Your task to perform on an android device: open app "ColorNote Notepad Notes" (install if not already installed) and go to login screen Image 0: 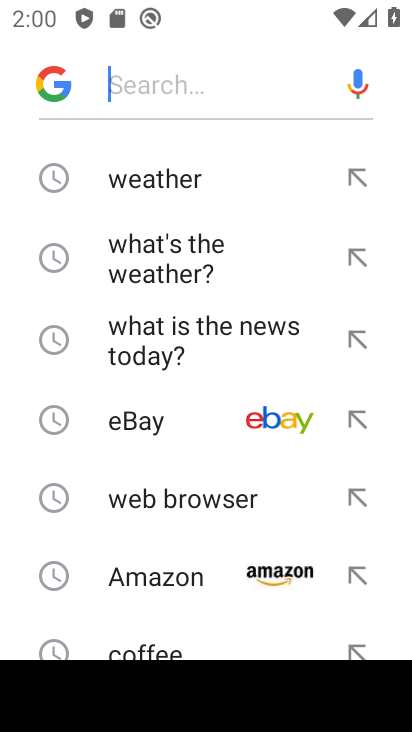
Step 0: press back button
Your task to perform on an android device: open app "ColorNote Notepad Notes" (install if not already installed) and go to login screen Image 1: 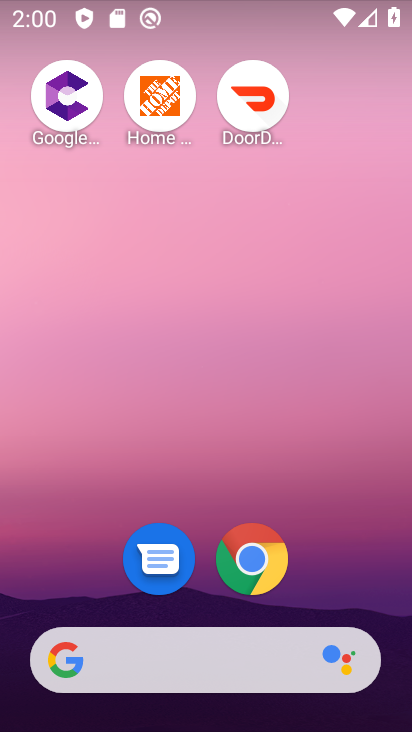
Step 1: drag from (206, 493) to (271, 12)
Your task to perform on an android device: open app "ColorNote Notepad Notes" (install if not already installed) and go to login screen Image 2: 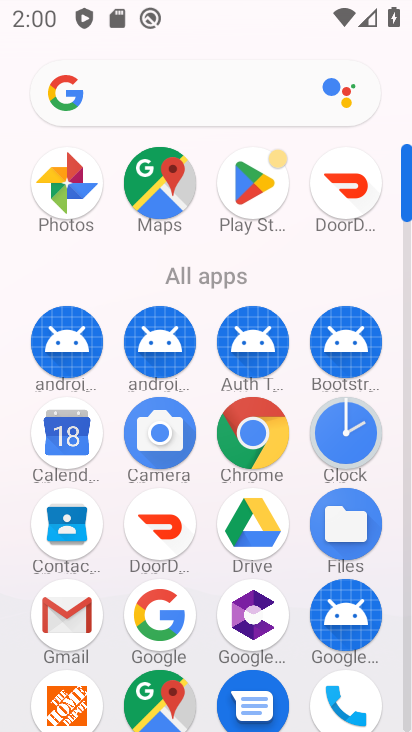
Step 2: click (255, 177)
Your task to perform on an android device: open app "ColorNote Notepad Notes" (install if not already installed) and go to login screen Image 3: 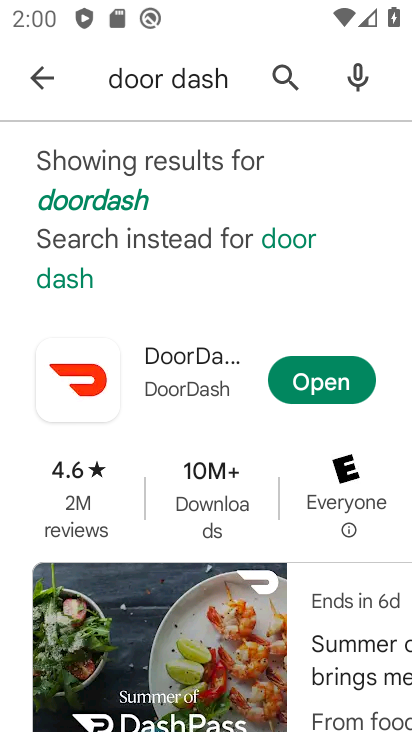
Step 3: click (283, 67)
Your task to perform on an android device: open app "ColorNote Notepad Notes" (install if not already installed) and go to login screen Image 4: 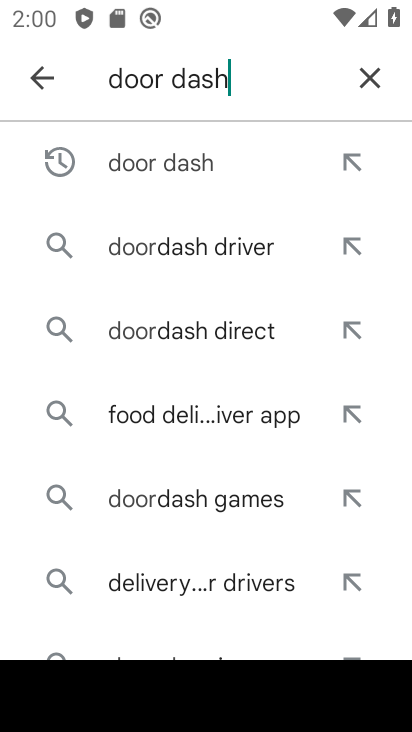
Step 4: click (369, 79)
Your task to perform on an android device: open app "ColorNote Notepad Notes" (install if not already installed) and go to login screen Image 5: 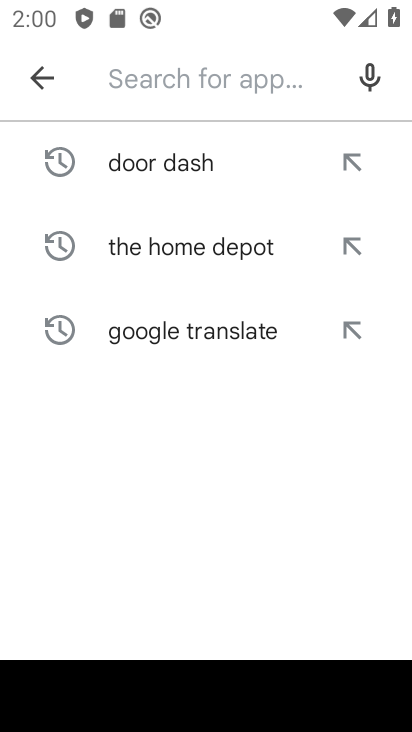
Step 5: click (106, 62)
Your task to perform on an android device: open app "ColorNote Notepad Notes" (install if not already installed) and go to login screen Image 6: 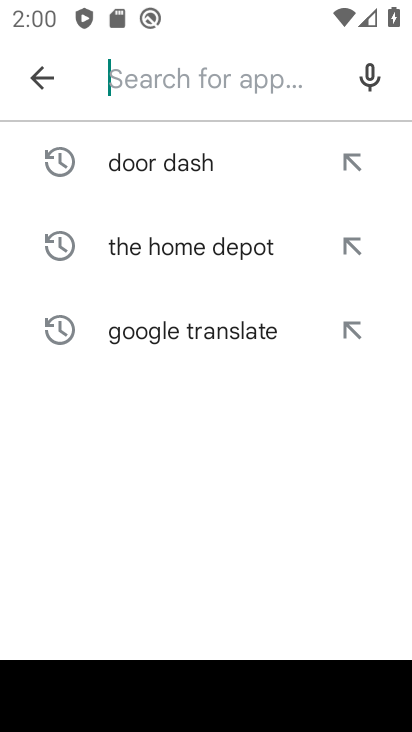
Step 6: type "ColorNote Notepad Notes"
Your task to perform on an android device: open app "ColorNote Notepad Notes" (install if not already installed) and go to login screen Image 7: 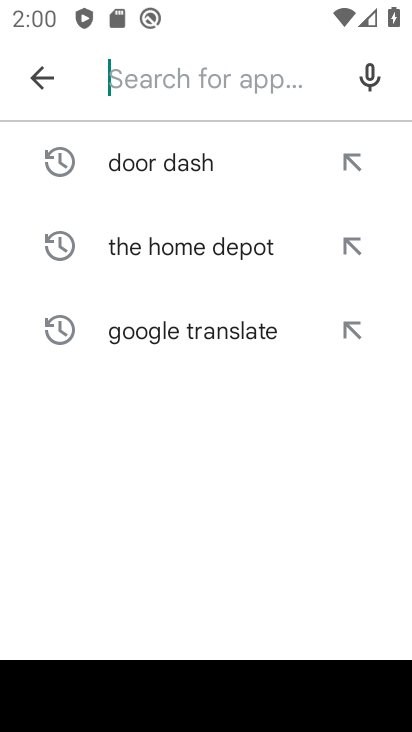
Step 7: click (204, 462)
Your task to perform on an android device: open app "ColorNote Notepad Notes" (install if not already installed) and go to login screen Image 8: 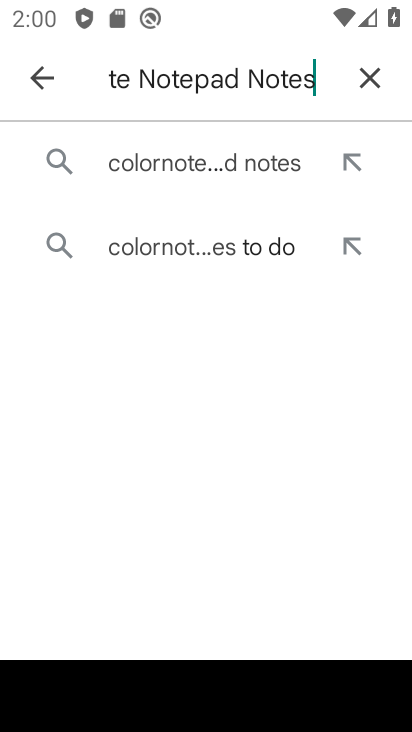
Step 8: click (176, 154)
Your task to perform on an android device: open app "ColorNote Notepad Notes" (install if not already installed) and go to login screen Image 9: 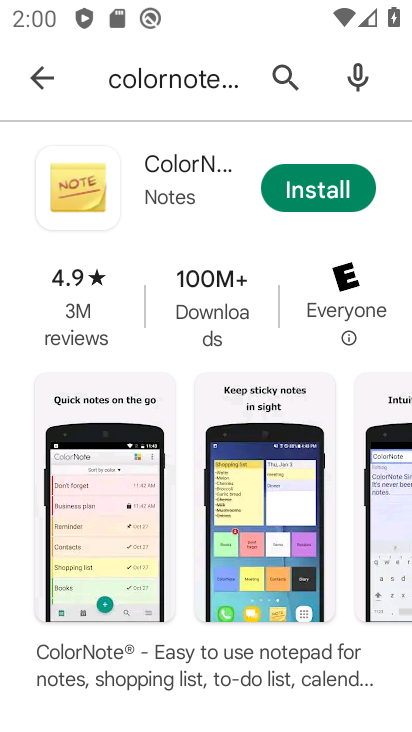
Step 9: click (335, 189)
Your task to perform on an android device: open app "ColorNote Notepad Notes" (install if not already installed) and go to login screen Image 10: 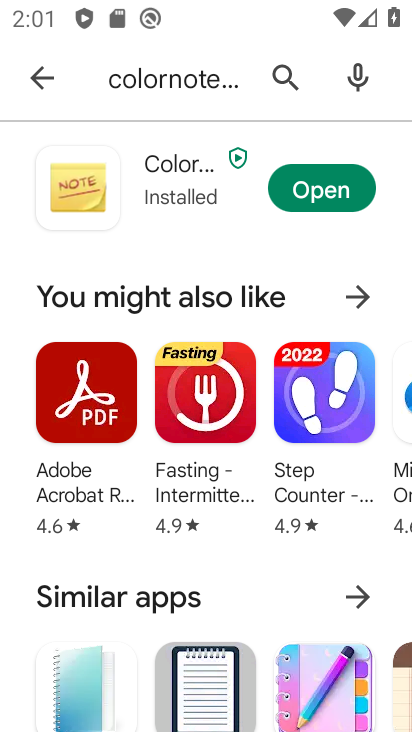
Step 10: click (321, 191)
Your task to perform on an android device: open app "ColorNote Notepad Notes" (install if not already installed) and go to login screen Image 11: 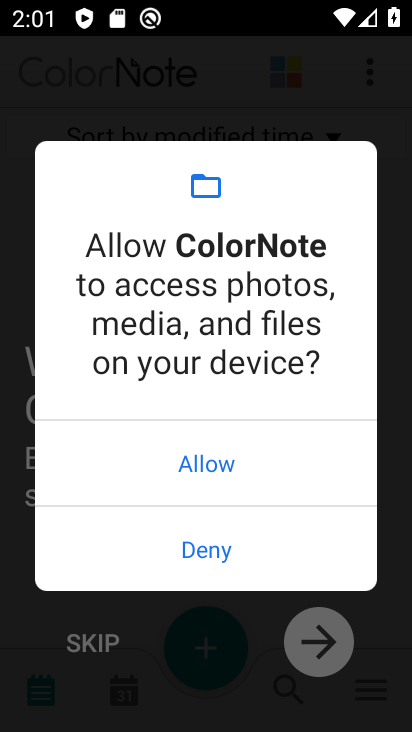
Step 11: press back button
Your task to perform on an android device: open app "ColorNote Notepad Notes" (install if not already installed) and go to login screen Image 12: 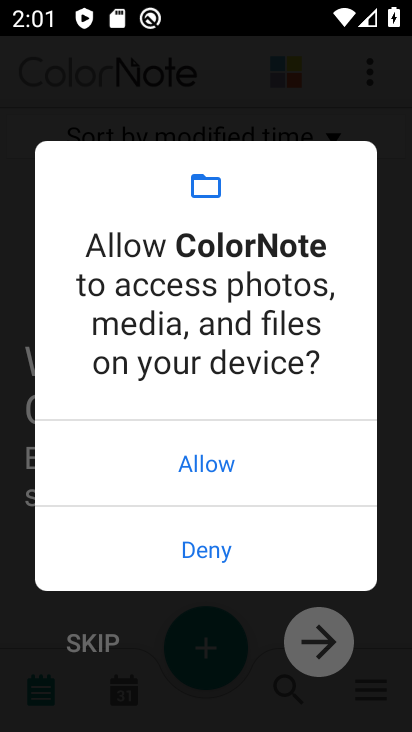
Step 12: press back button
Your task to perform on an android device: open app "ColorNote Notepad Notes" (install if not already installed) and go to login screen Image 13: 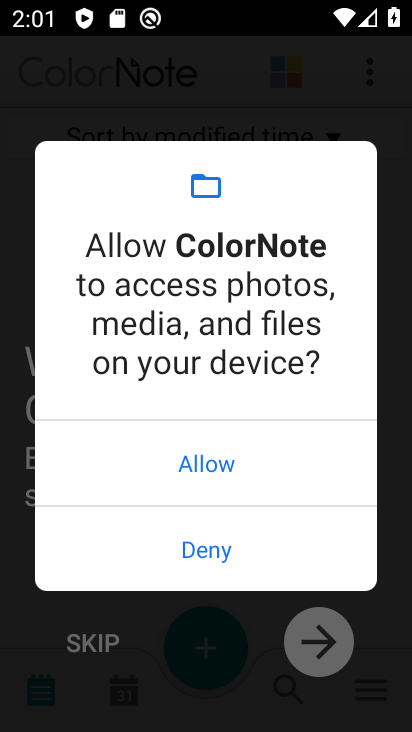
Step 13: press home button
Your task to perform on an android device: open app "ColorNote Notepad Notes" (install if not already installed) and go to login screen Image 14: 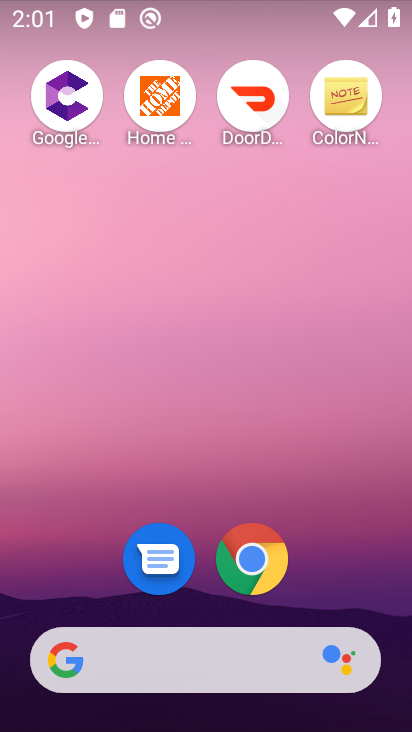
Step 14: drag from (170, 408) to (274, 16)
Your task to perform on an android device: open app "ColorNote Notepad Notes" (install if not already installed) and go to login screen Image 15: 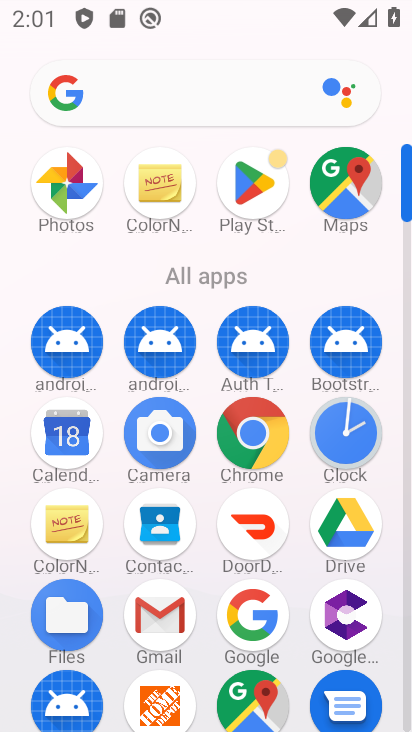
Step 15: click (159, 194)
Your task to perform on an android device: open app "ColorNote Notepad Notes" (install if not already installed) and go to login screen Image 16: 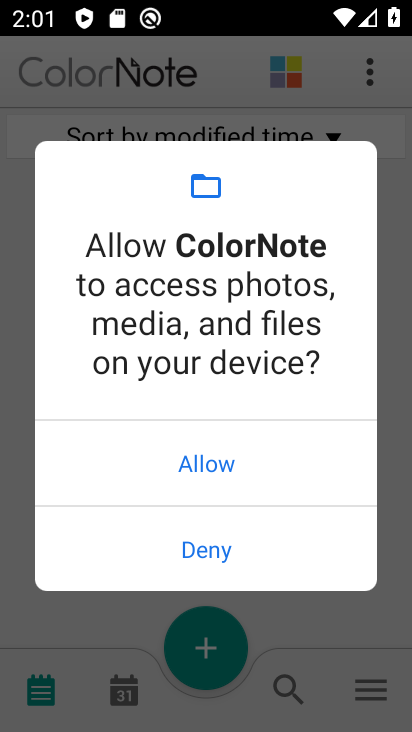
Step 16: click (192, 482)
Your task to perform on an android device: open app "ColorNote Notepad Notes" (install if not already installed) and go to login screen Image 17: 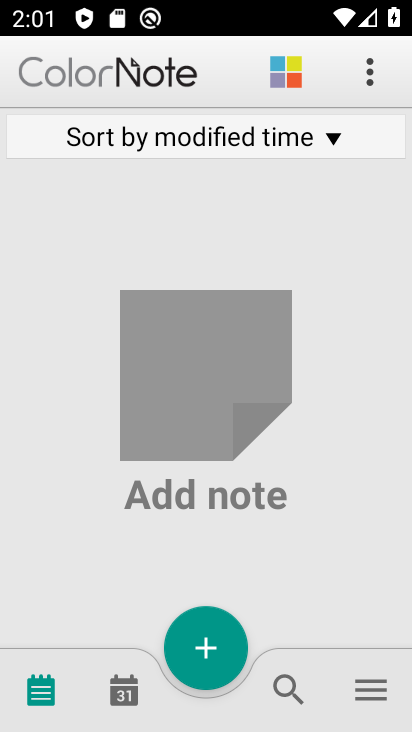
Step 17: click (386, 66)
Your task to perform on an android device: open app "ColorNote Notepad Notes" (install if not already installed) and go to login screen Image 18: 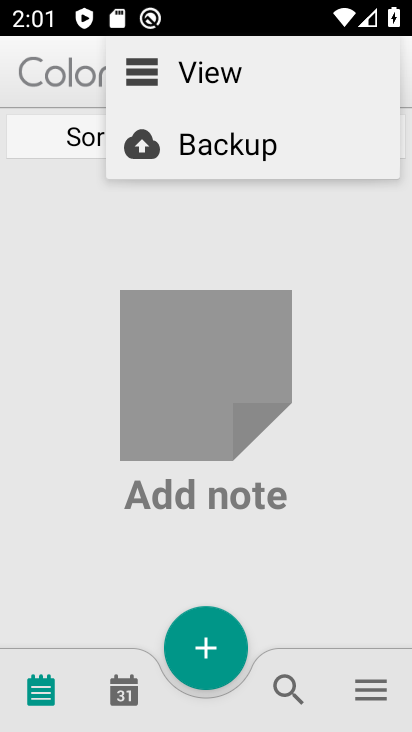
Step 18: click (71, 276)
Your task to perform on an android device: open app "ColorNote Notepad Notes" (install if not already installed) and go to login screen Image 19: 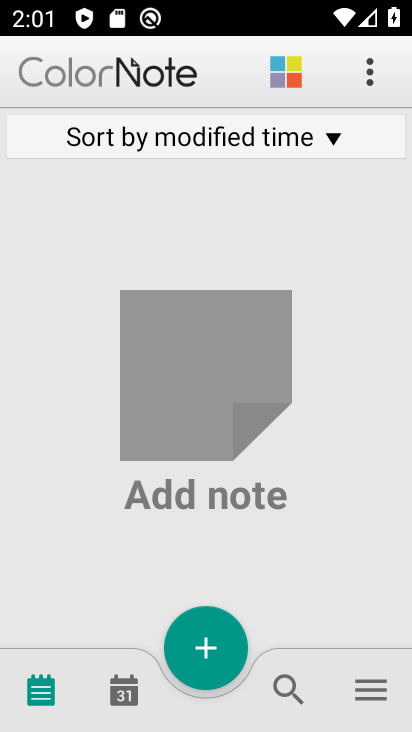
Step 19: click (351, 689)
Your task to perform on an android device: open app "ColorNote Notepad Notes" (install if not already installed) and go to login screen Image 20: 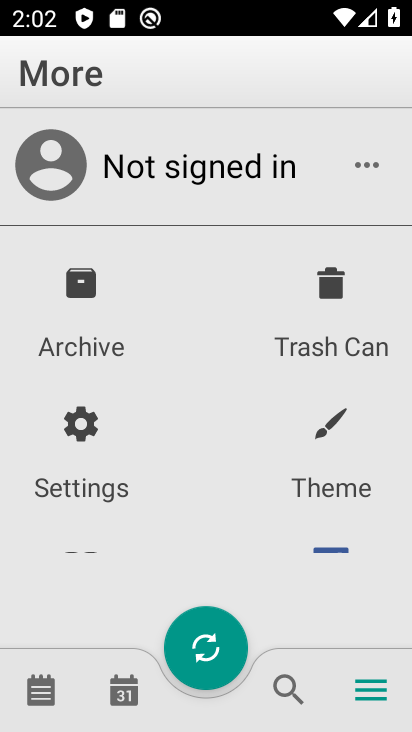
Step 20: click (162, 177)
Your task to perform on an android device: open app "ColorNote Notepad Notes" (install if not already installed) and go to login screen Image 21: 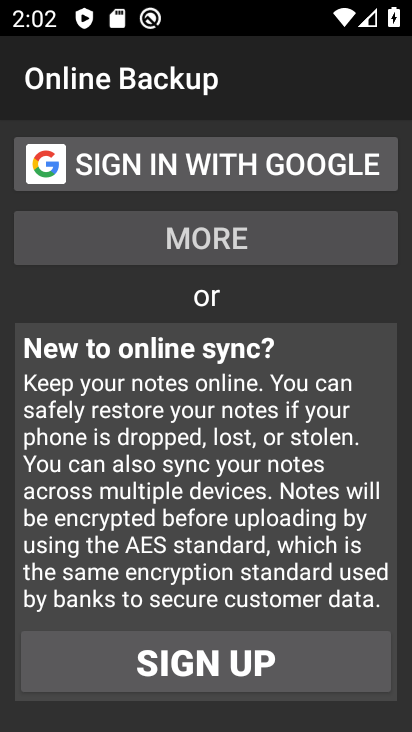
Step 21: task complete